Your task to perform on an android device: Open Google Maps Image 0: 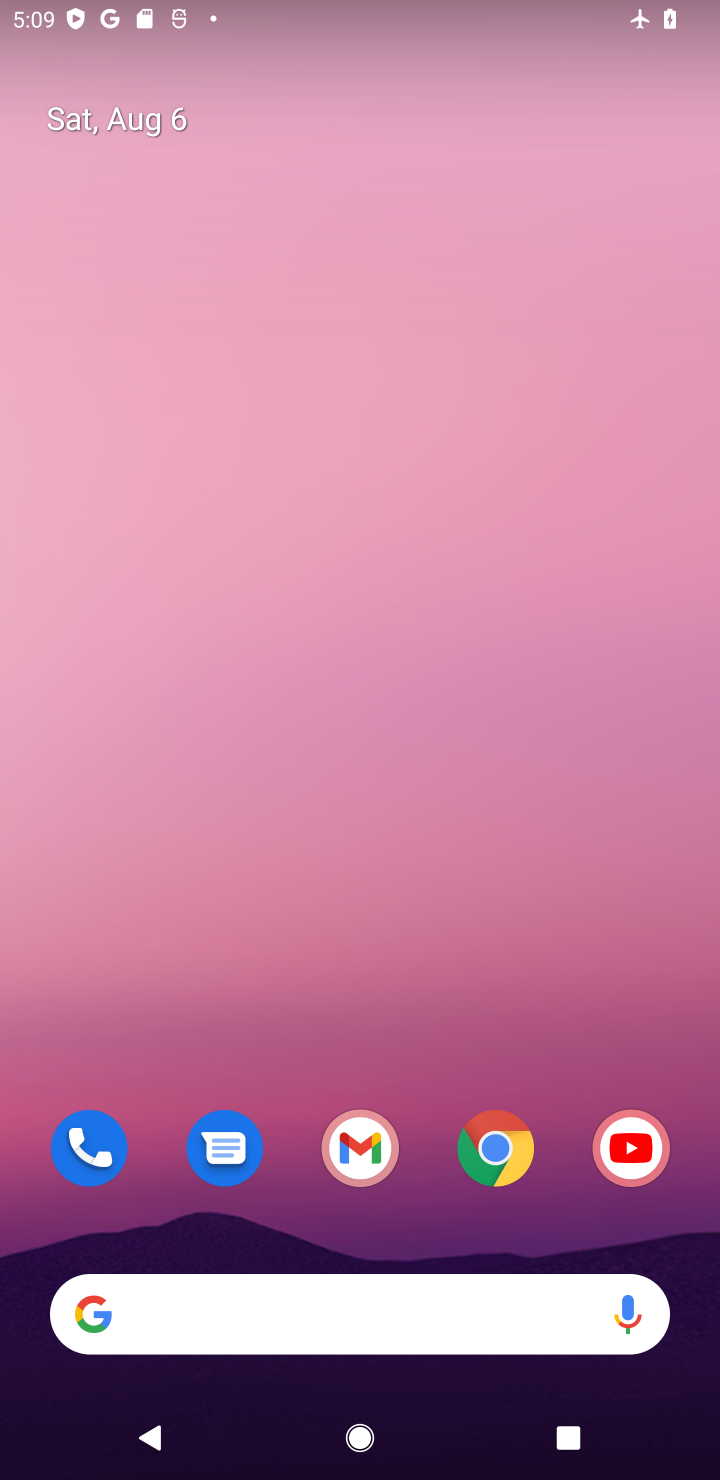
Step 0: drag from (435, 1213) to (704, 453)
Your task to perform on an android device: Open Google Maps Image 1: 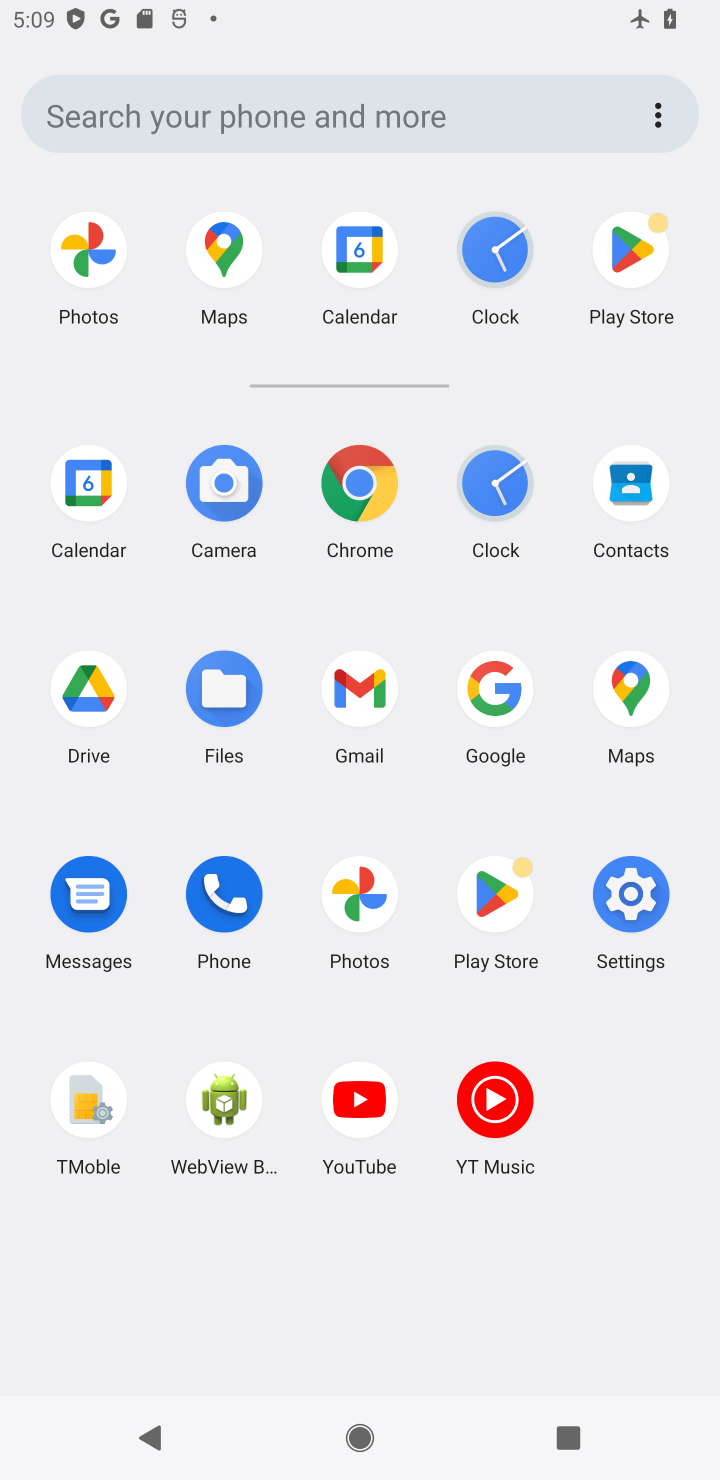
Step 1: click (625, 666)
Your task to perform on an android device: Open Google Maps Image 2: 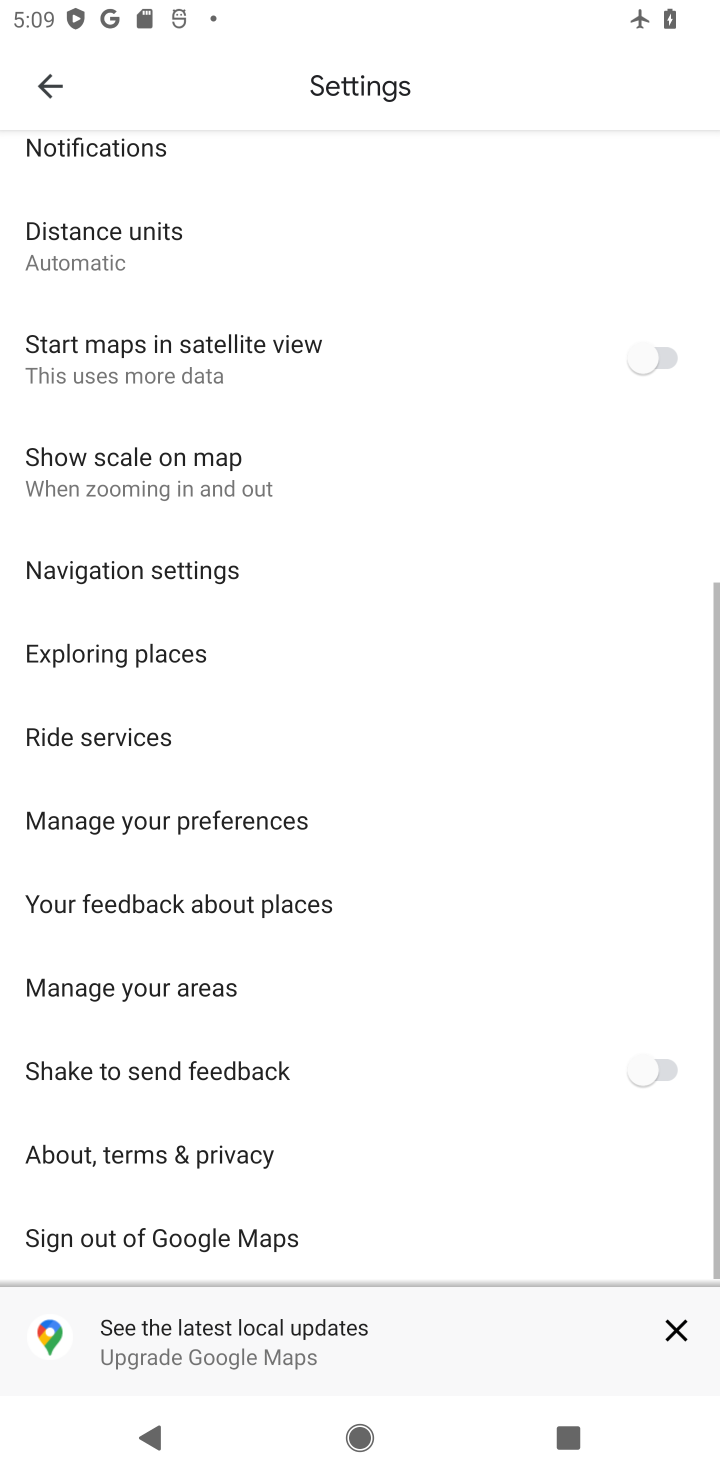
Step 2: click (114, 89)
Your task to perform on an android device: Open Google Maps Image 3: 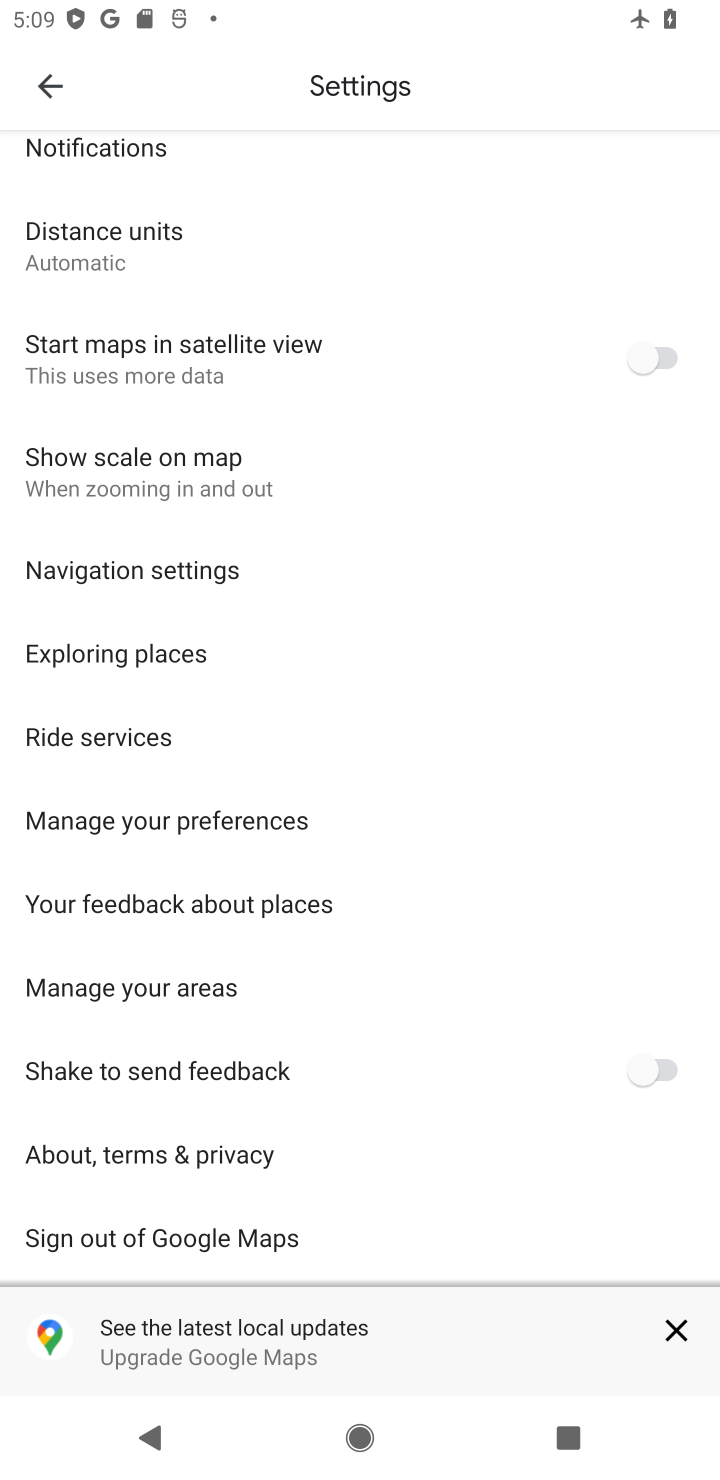
Step 3: click (48, 94)
Your task to perform on an android device: Open Google Maps Image 4: 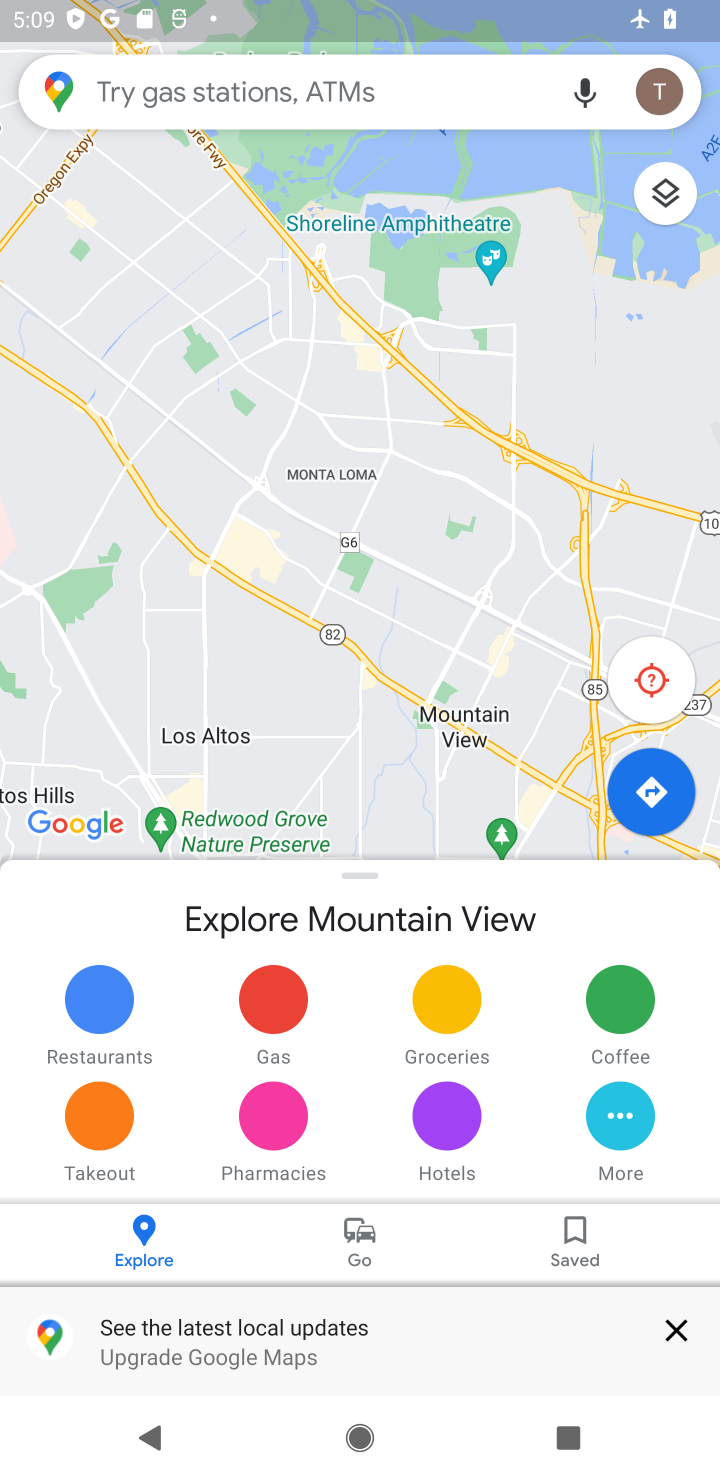
Step 4: task complete